Your task to perform on an android device: Open privacy settings Image 0: 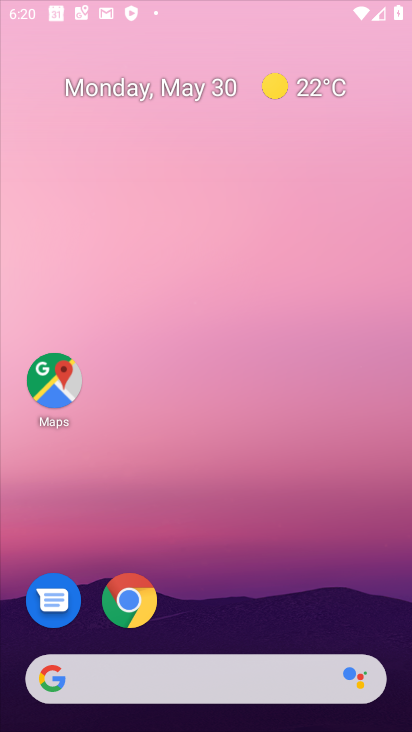
Step 0: press home button
Your task to perform on an android device: Open privacy settings Image 1: 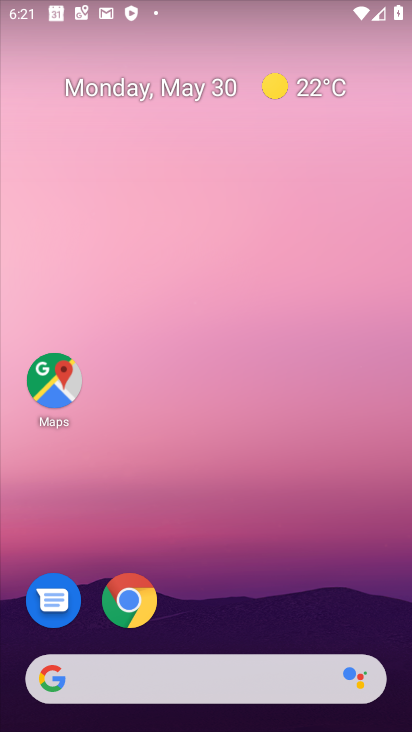
Step 1: drag from (240, 633) to (263, 112)
Your task to perform on an android device: Open privacy settings Image 2: 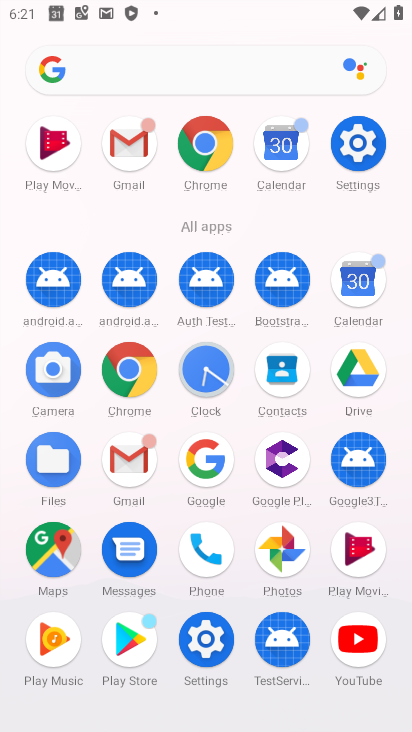
Step 2: click (367, 159)
Your task to perform on an android device: Open privacy settings Image 3: 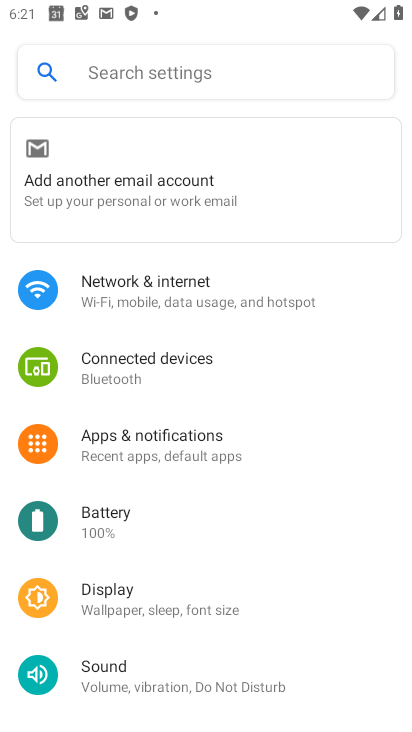
Step 3: drag from (312, 633) to (319, 293)
Your task to perform on an android device: Open privacy settings Image 4: 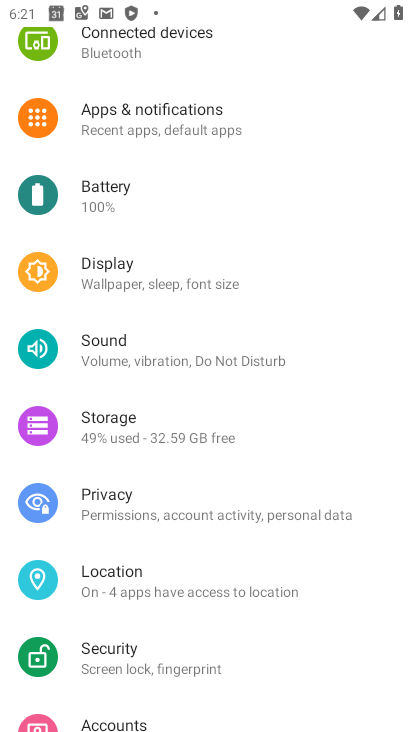
Step 4: click (107, 512)
Your task to perform on an android device: Open privacy settings Image 5: 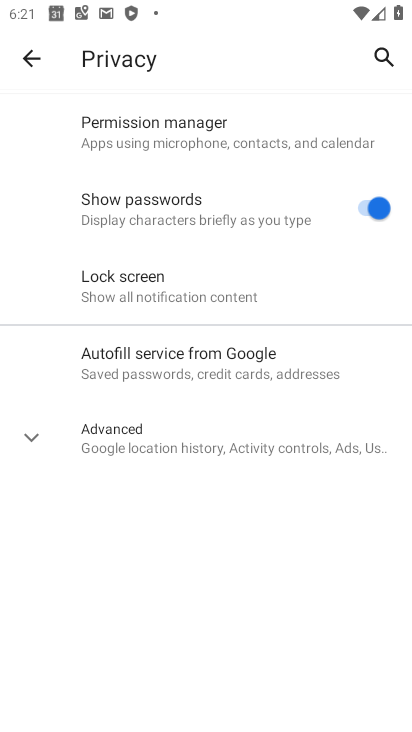
Step 5: task complete